Your task to perform on an android device: Open calendar and show me the fourth week of next month Image 0: 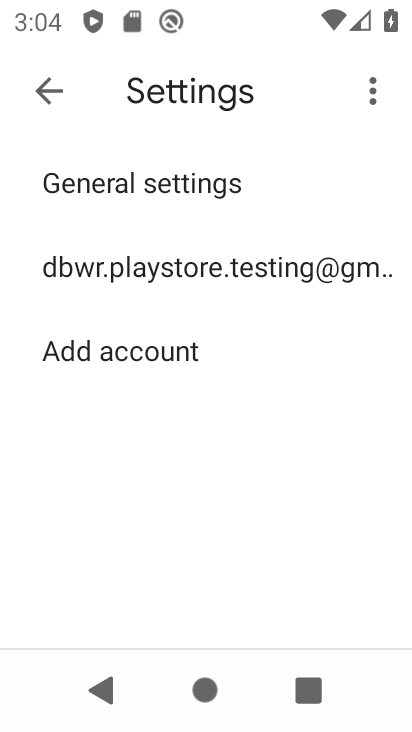
Step 0: press home button
Your task to perform on an android device: Open calendar and show me the fourth week of next month Image 1: 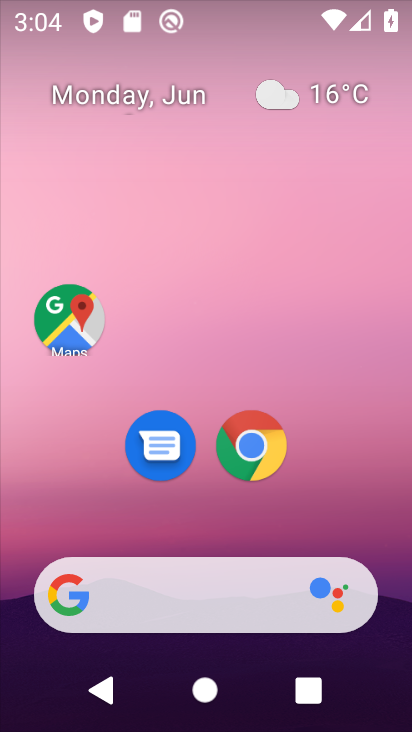
Step 1: drag from (219, 551) to (247, 309)
Your task to perform on an android device: Open calendar and show me the fourth week of next month Image 2: 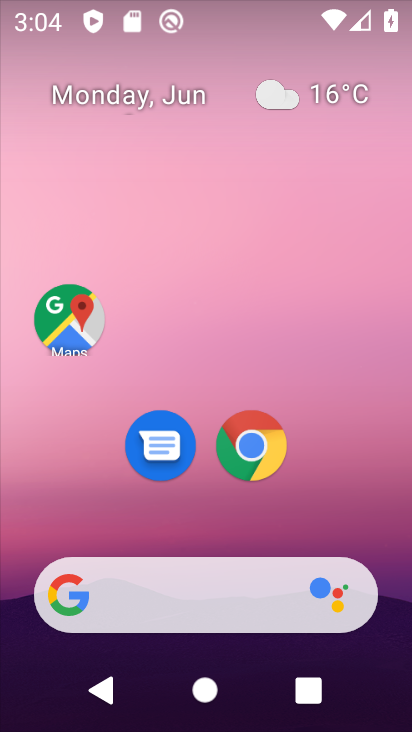
Step 2: drag from (230, 409) to (237, 247)
Your task to perform on an android device: Open calendar and show me the fourth week of next month Image 3: 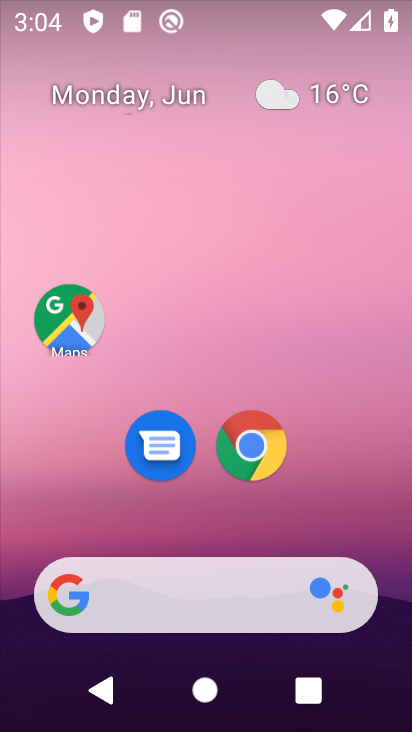
Step 3: drag from (177, 525) to (219, 303)
Your task to perform on an android device: Open calendar and show me the fourth week of next month Image 4: 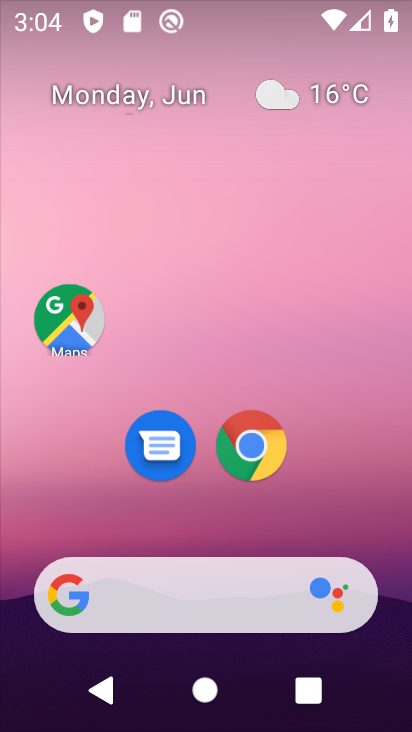
Step 4: drag from (240, 394) to (249, 270)
Your task to perform on an android device: Open calendar and show me the fourth week of next month Image 5: 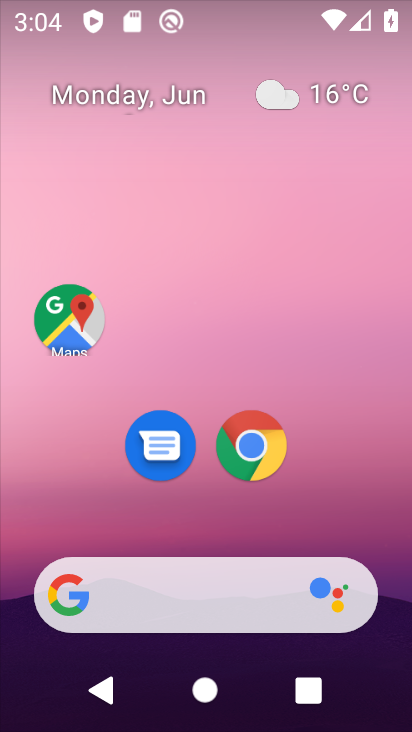
Step 5: drag from (209, 533) to (212, 236)
Your task to perform on an android device: Open calendar and show me the fourth week of next month Image 6: 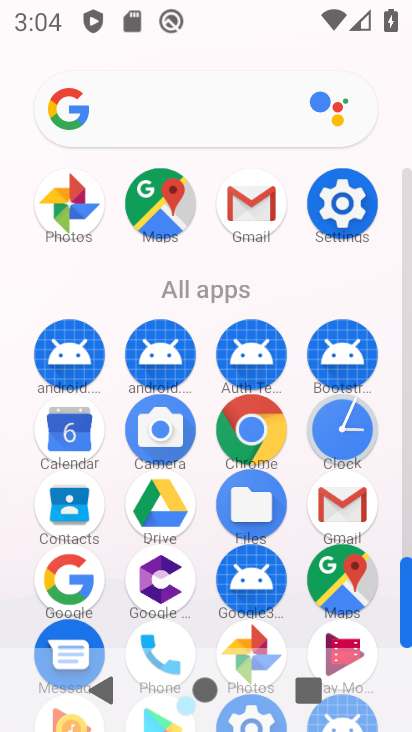
Step 6: click (59, 398)
Your task to perform on an android device: Open calendar and show me the fourth week of next month Image 7: 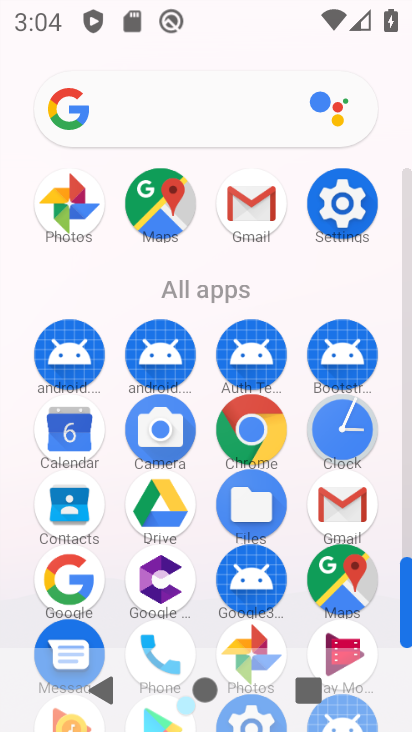
Step 7: click (68, 423)
Your task to perform on an android device: Open calendar and show me the fourth week of next month Image 8: 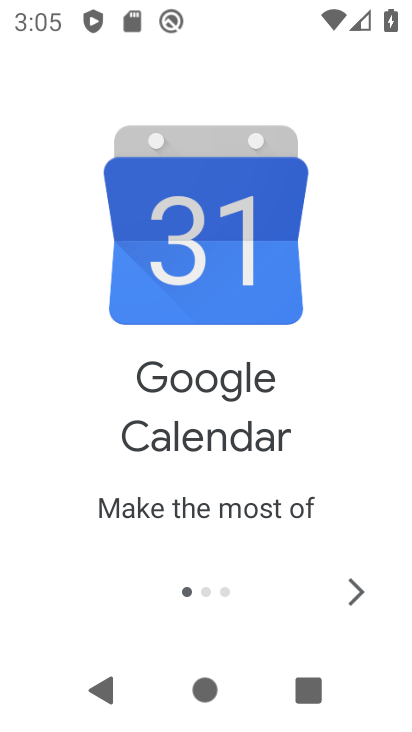
Step 8: click (351, 597)
Your task to perform on an android device: Open calendar and show me the fourth week of next month Image 9: 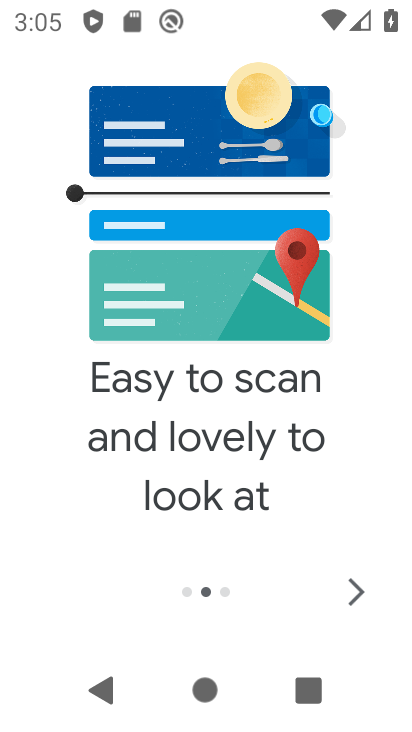
Step 9: click (351, 597)
Your task to perform on an android device: Open calendar and show me the fourth week of next month Image 10: 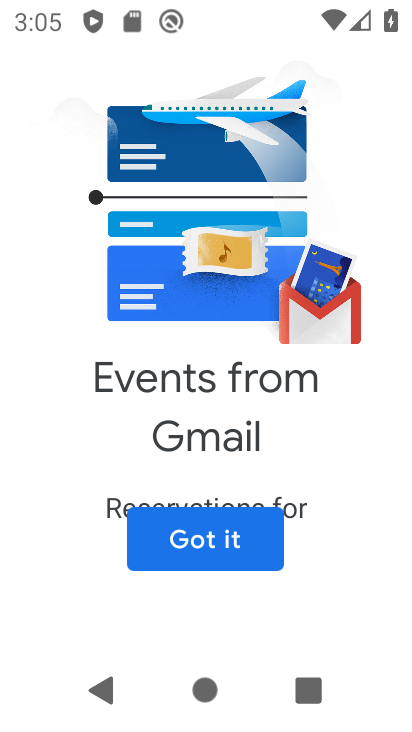
Step 10: click (261, 533)
Your task to perform on an android device: Open calendar and show me the fourth week of next month Image 11: 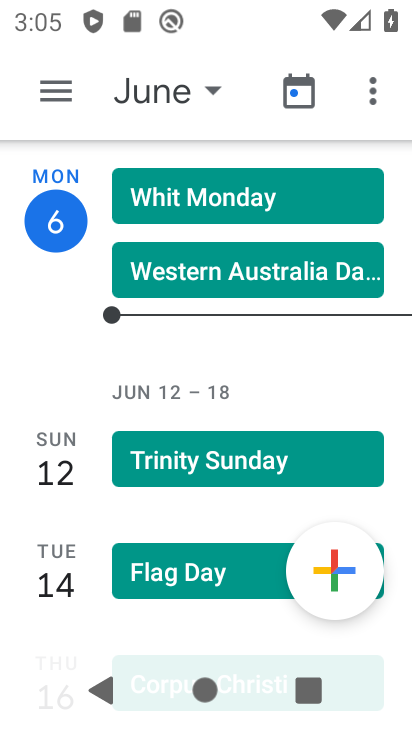
Step 11: click (46, 92)
Your task to perform on an android device: Open calendar and show me the fourth week of next month Image 12: 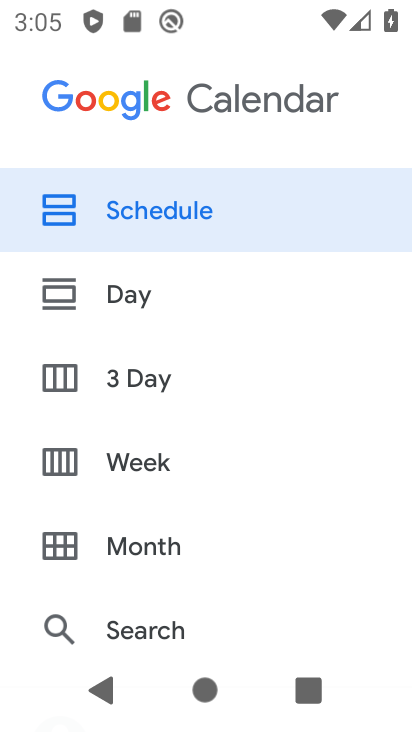
Step 12: click (153, 533)
Your task to perform on an android device: Open calendar and show me the fourth week of next month Image 13: 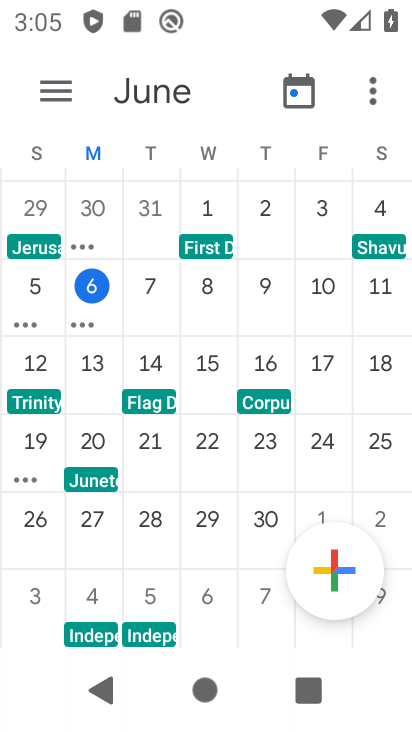
Step 13: task complete